Your task to perform on an android device: set the stopwatch Image 0: 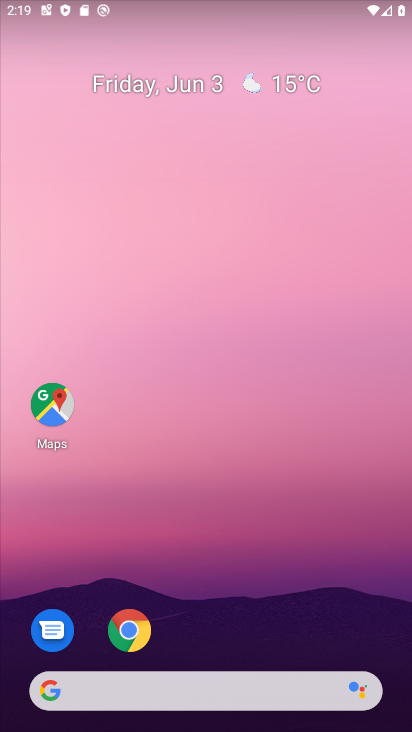
Step 0: drag from (232, 301) to (228, 19)
Your task to perform on an android device: set the stopwatch Image 1: 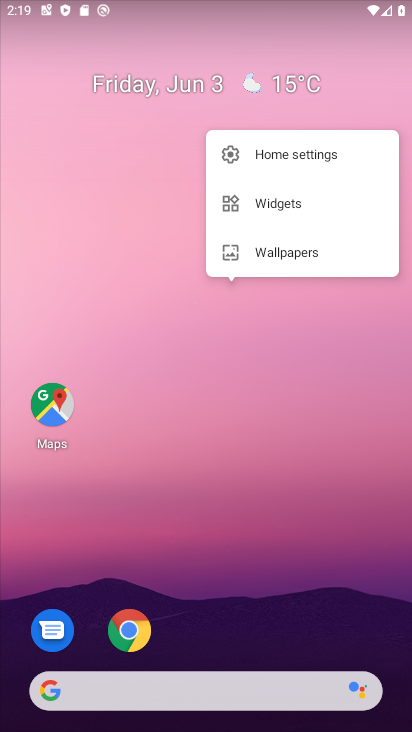
Step 1: drag from (212, 536) to (116, 35)
Your task to perform on an android device: set the stopwatch Image 2: 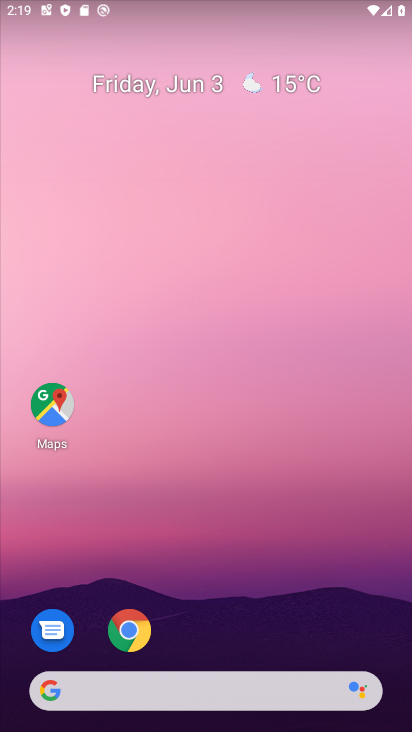
Step 2: drag from (214, 562) to (195, 0)
Your task to perform on an android device: set the stopwatch Image 3: 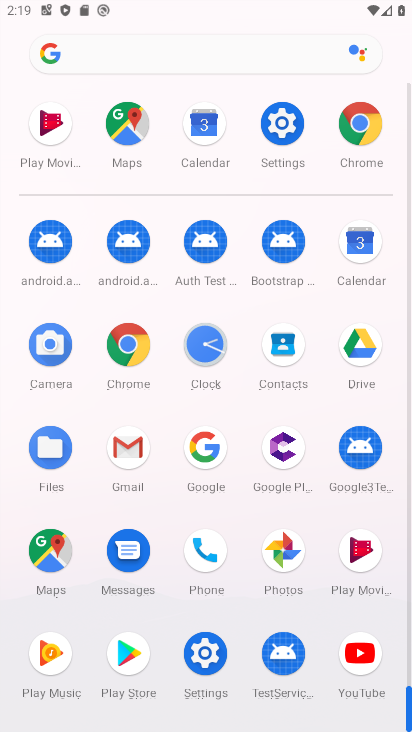
Step 3: drag from (7, 459) to (0, 176)
Your task to perform on an android device: set the stopwatch Image 4: 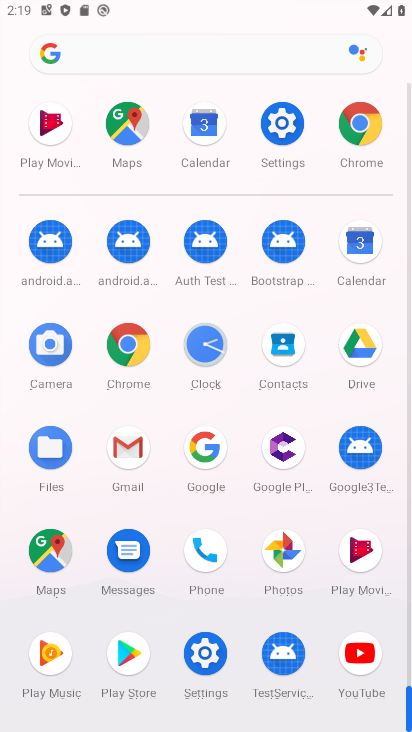
Step 4: click (205, 342)
Your task to perform on an android device: set the stopwatch Image 5: 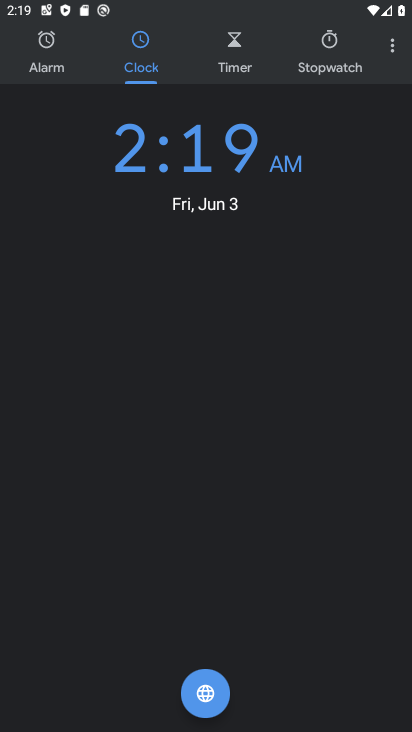
Step 5: click (321, 50)
Your task to perform on an android device: set the stopwatch Image 6: 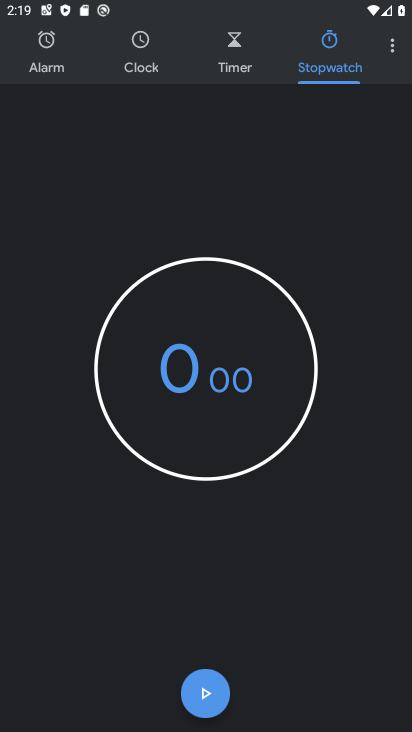
Step 6: click (221, 698)
Your task to perform on an android device: set the stopwatch Image 7: 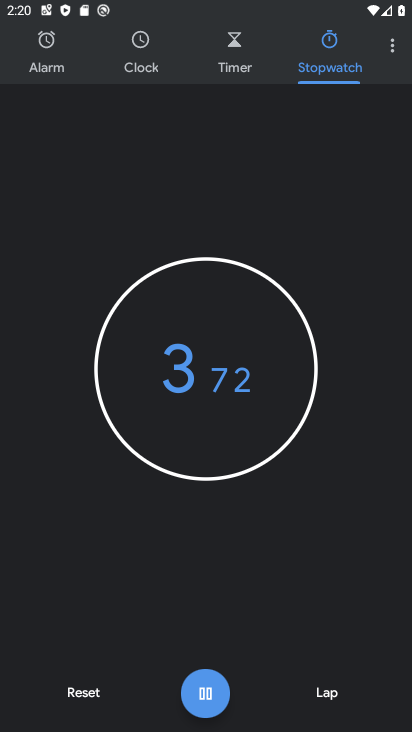
Step 7: task complete